Your task to perform on an android device: change alarm snooze length Image 0: 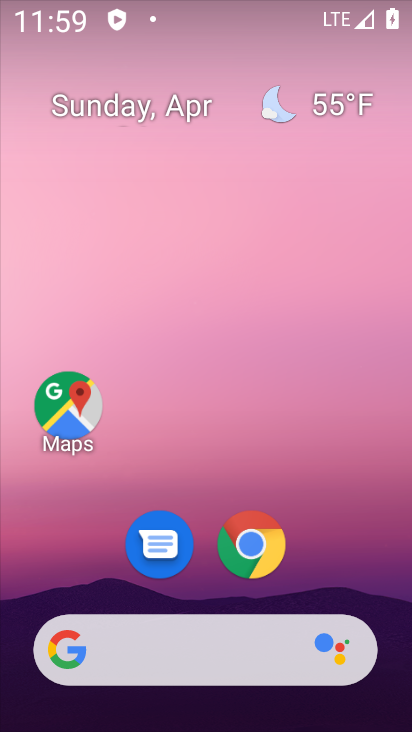
Step 0: drag from (340, 567) to (101, 52)
Your task to perform on an android device: change alarm snooze length Image 1: 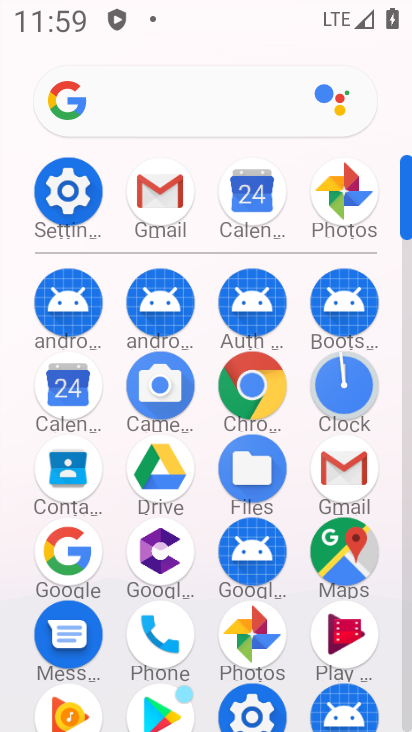
Step 1: click (350, 395)
Your task to perform on an android device: change alarm snooze length Image 2: 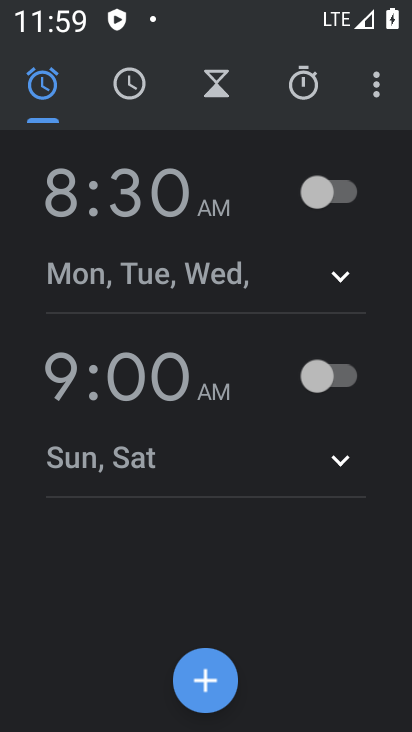
Step 2: click (377, 88)
Your task to perform on an android device: change alarm snooze length Image 3: 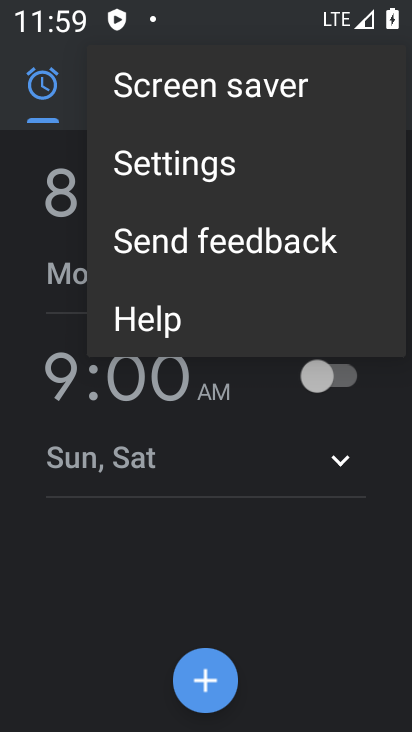
Step 3: click (170, 166)
Your task to perform on an android device: change alarm snooze length Image 4: 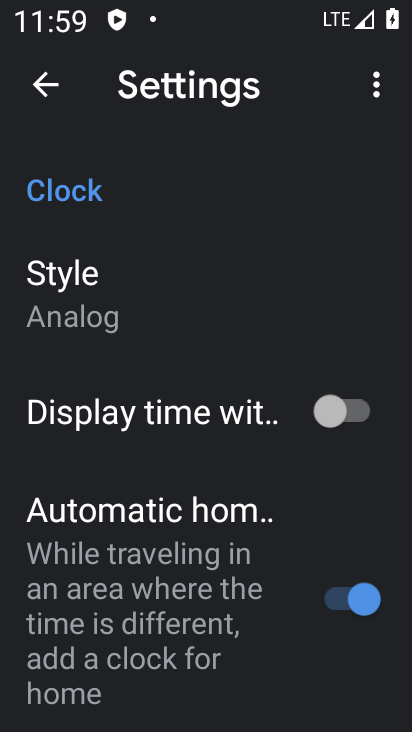
Step 4: drag from (167, 667) to (185, 210)
Your task to perform on an android device: change alarm snooze length Image 5: 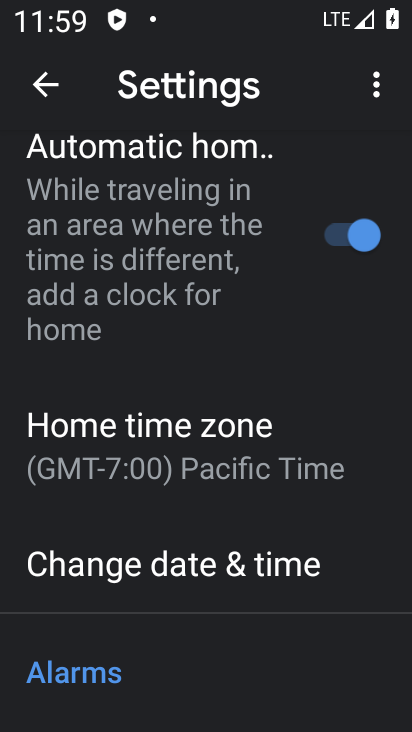
Step 5: drag from (175, 642) to (159, 270)
Your task to perform on an android device: change alarm snooze length Image 6: 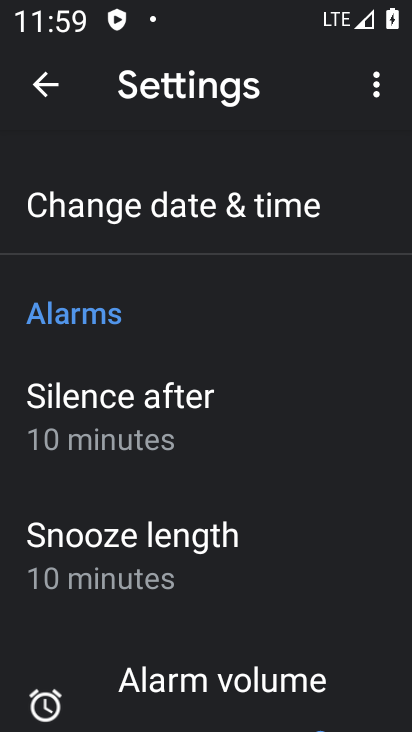
Step 6: click (120, 550)
Your task to perform on an android device: change alarm snooze length Image 7: 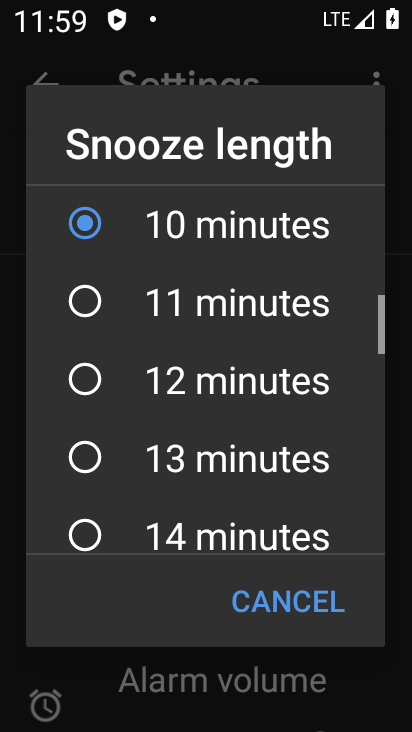
Step 7: drag from (149, 545) to (115, 60)
Your task to perform on an android device: change alarm snooze length Image 8: 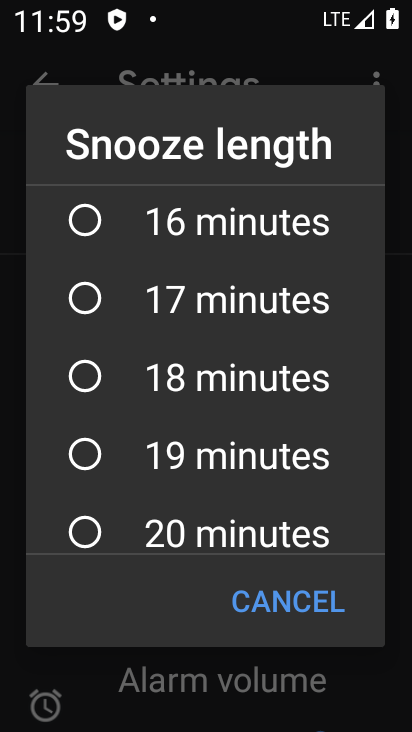
Step 8: click (79, 542)
Your task to perform on an android device: change alarm snooze length Image 9: 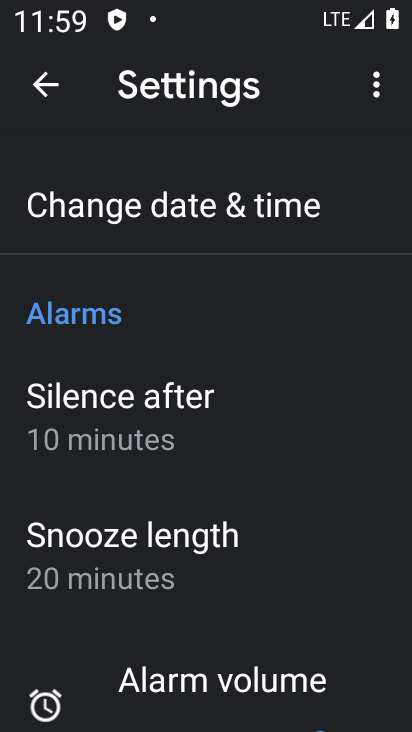
Step 9: task complete